Your task to perform on an android device: Open the stopwatch Image 0: 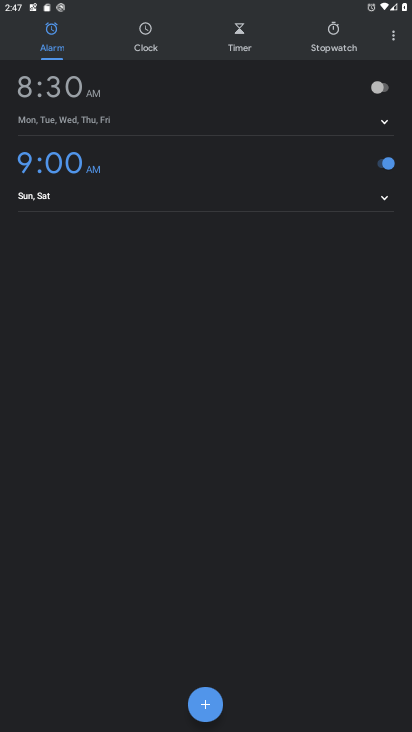
Step 0: press home button
Your task to perform on an android device: Open the stopwatch Image 1: 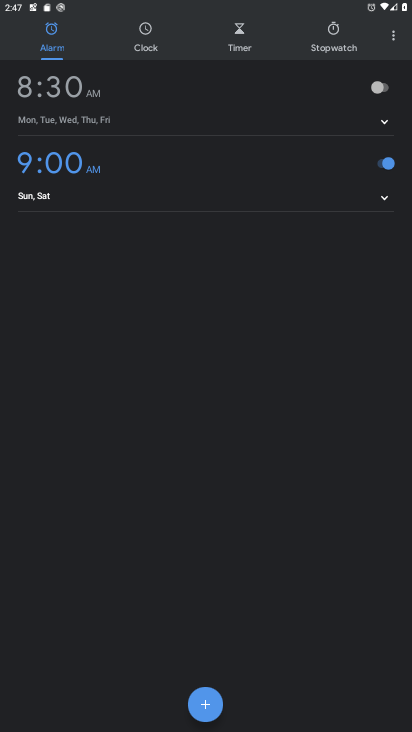
Step 1: press home button
Your task to perform on an android device: Open the stopwatch Image 2: 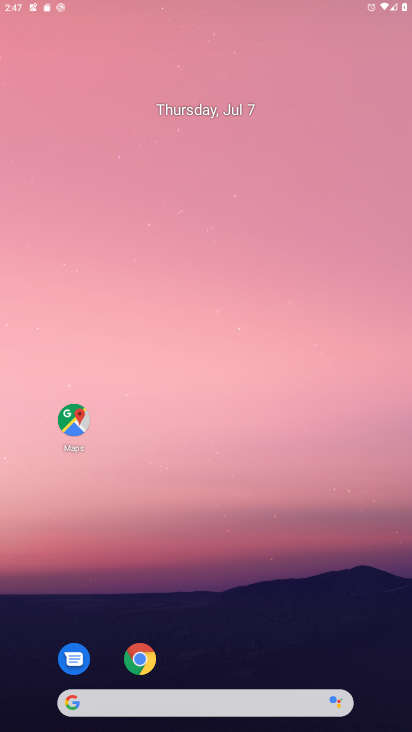
Step 2: drag from (243, 650) to (377, 77)
Your task to perform on an android device: Open the stopwatch Image 3: 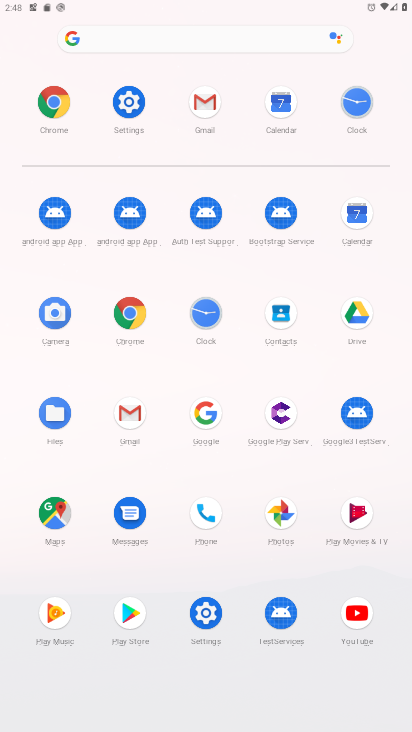
Step 3: click (210, 311)
Your task to perform on an android device: Open the stopwatch Image 4: 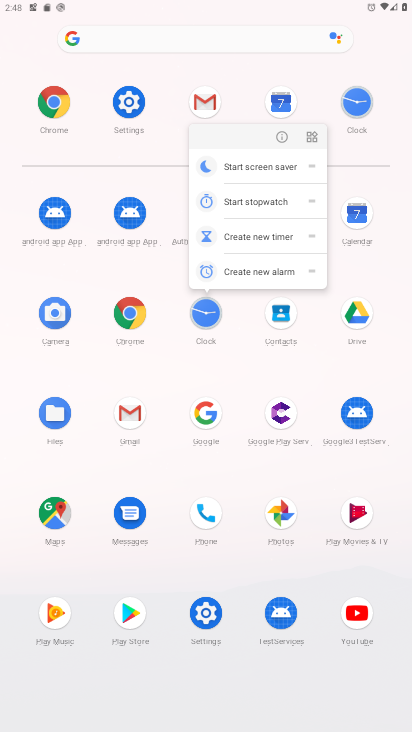
Step 4: click (279, 143)
Your task to perform on an android device: Open the stopwatch Image 5: 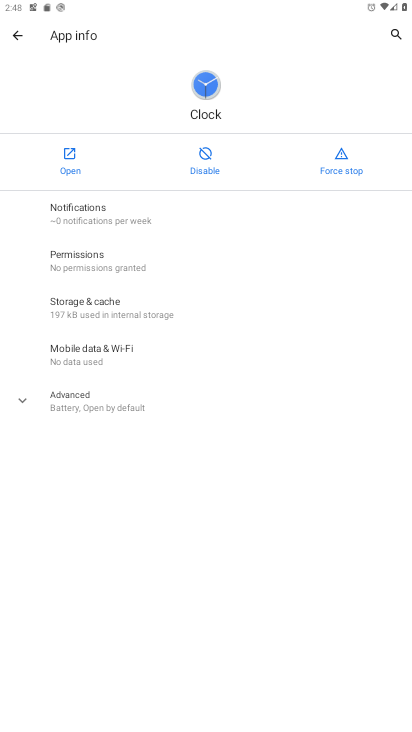
Step 5: click (60, 145)
Your task to perform on an android device: Open the stopwatch Image 6: 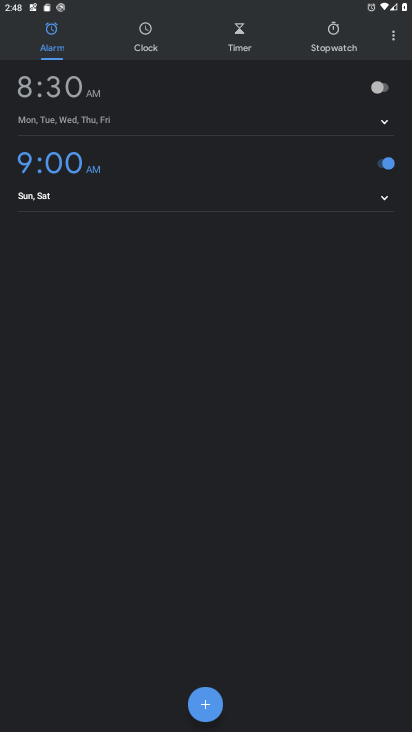
Step 6: click (344, 48)
Your task to perform on an android device: Open the stopwatch Image 7: 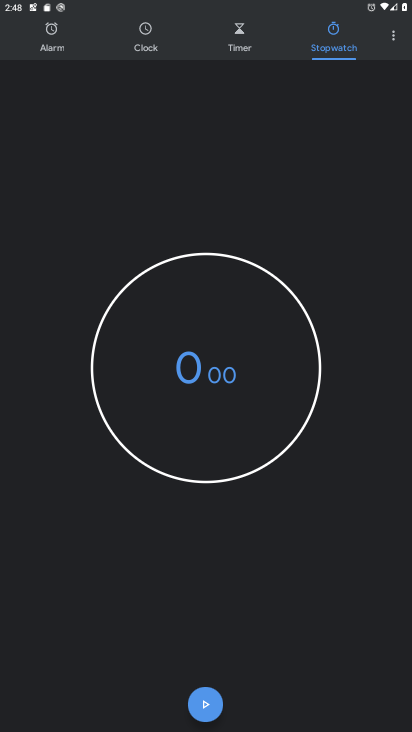
Step 7: click (200, 725)
Your task to perform on an android device: Open the stopwatch Image 8: 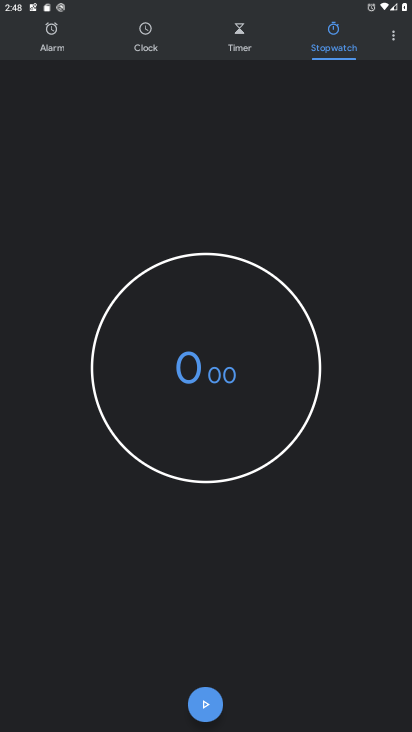
Step 8: task complete